Your task to perform on an android device: Open Youtube and go to the subscriptions tab Image 0: 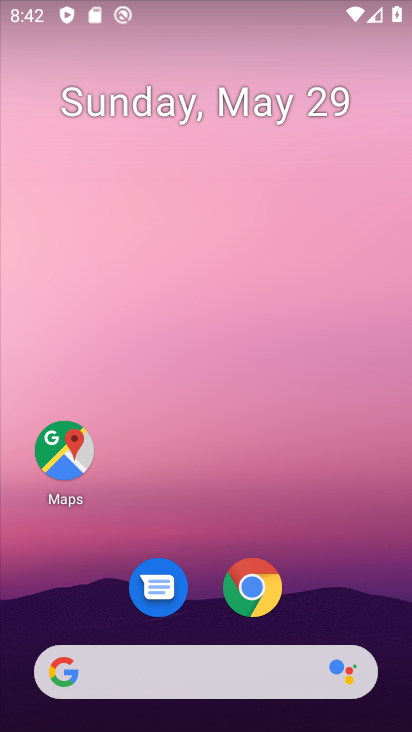
Step 0: drag from (187, 636) to (260, 93)
Your task to perform on an android device: Open Youtube and go to the subscriptions tab Image 1: 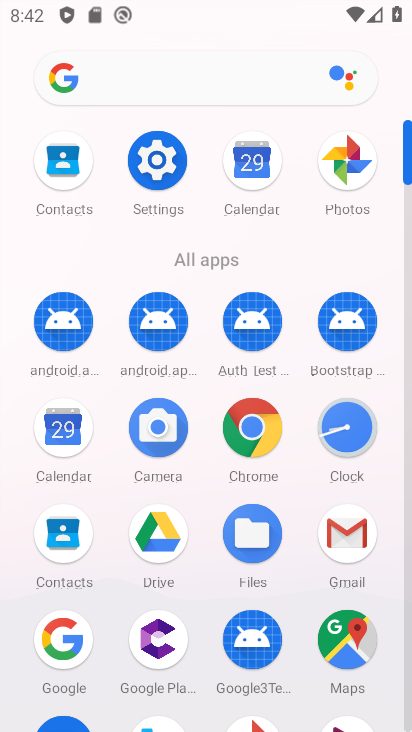
Step 1: drag from (170, 660) to (304, 91)
Your task to perform on an android device: Open Youtube and go to the subscriptions tab Image 2: 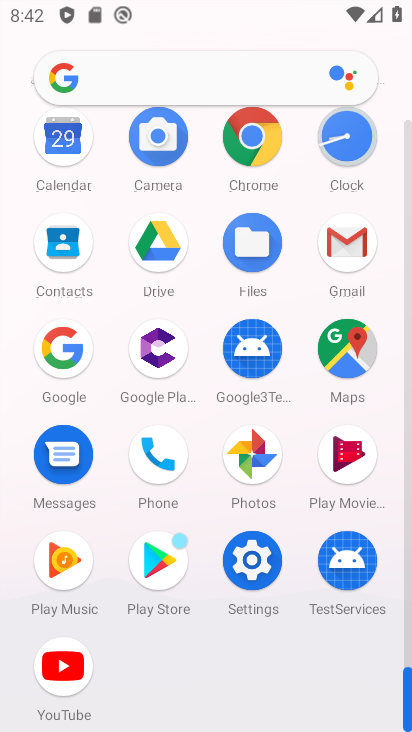
Step 2: click (78, 665)
Your task to perform on an android device: Open Youtube and go to the subscriptions tab Image 3: 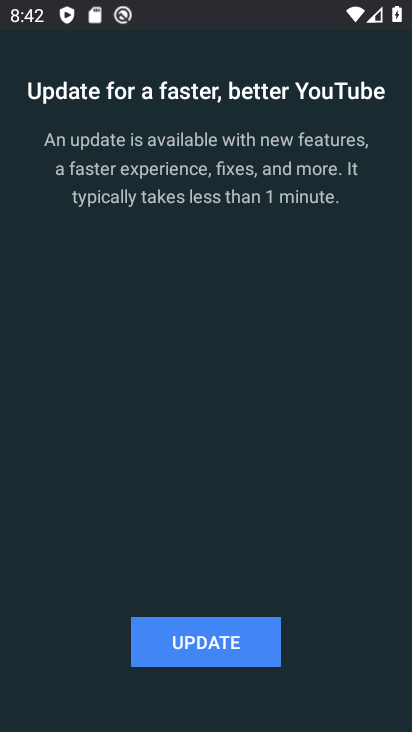
Step 3: click (202, 637)
Your task to perform on an android device: Open Youtube and go to the subscriptions tab Image 4: 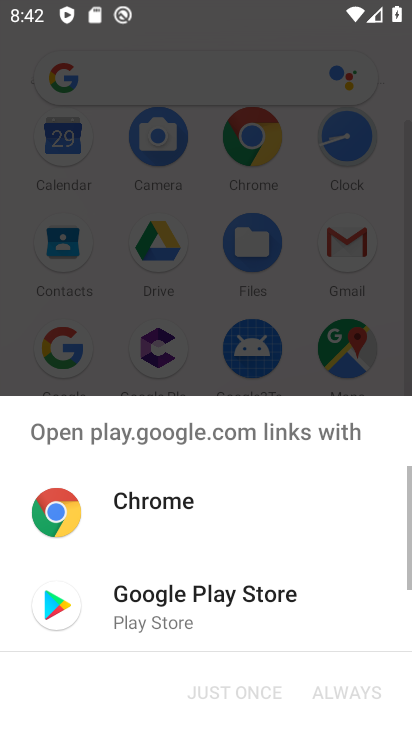
Step 4: click (180, 603)
Your task to perform on an android device: Open Youtube and go to the subscriptions tab Image 5: 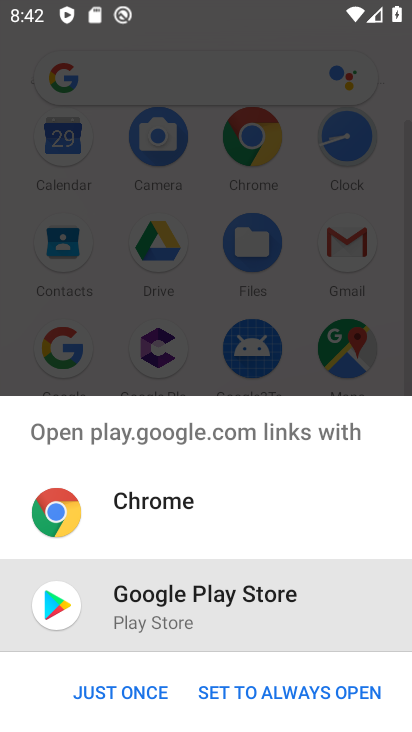
Step 5: click (113, 698)
Your task to perform on an android device: Open Youtube and go to the subscriptions tab Image 6: 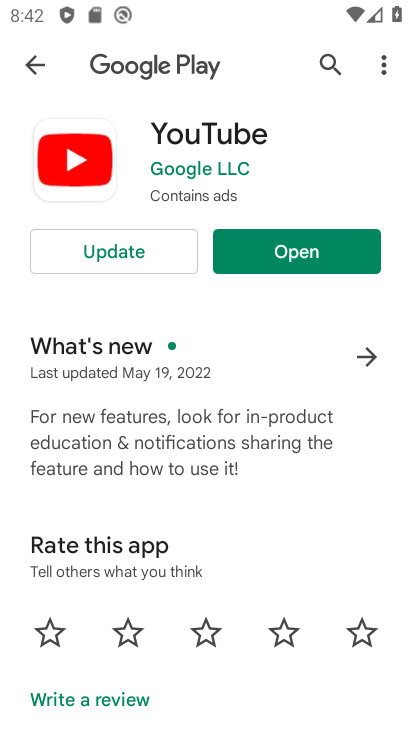
Step 6: click (90, 249)
Your task to perform on an android device: Open Youtube and go to the subscriptions tab Image 7: 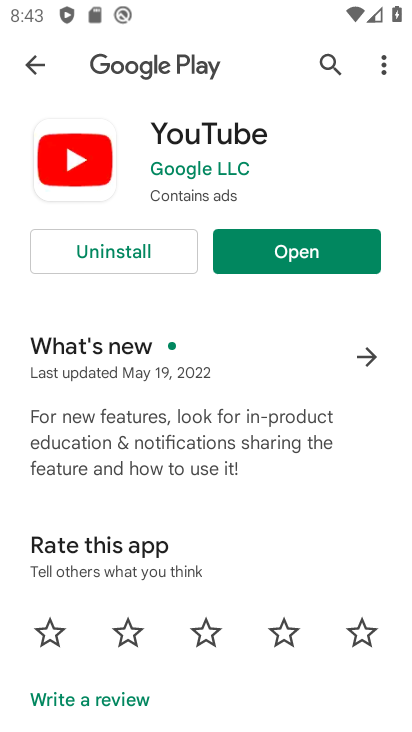
Step 7: click (320, 252)
Your task to perform on an android device: Open Youtube and go to the subscriptions tab Image 8: 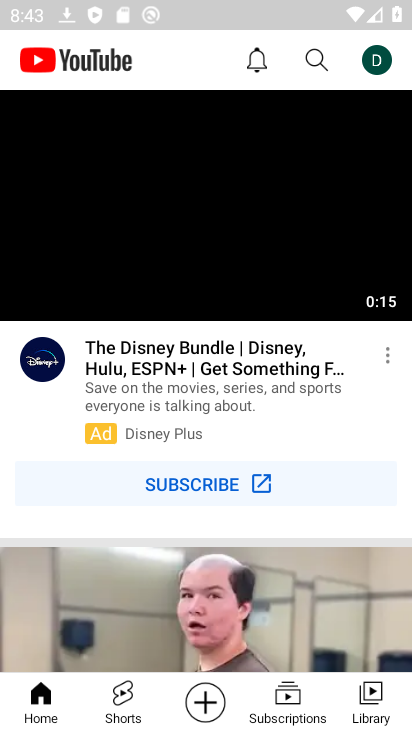
Step 8: click (285, 713)
Your task to perform on an android device: Open Youtube and go to the subscriptions tab Image 9: 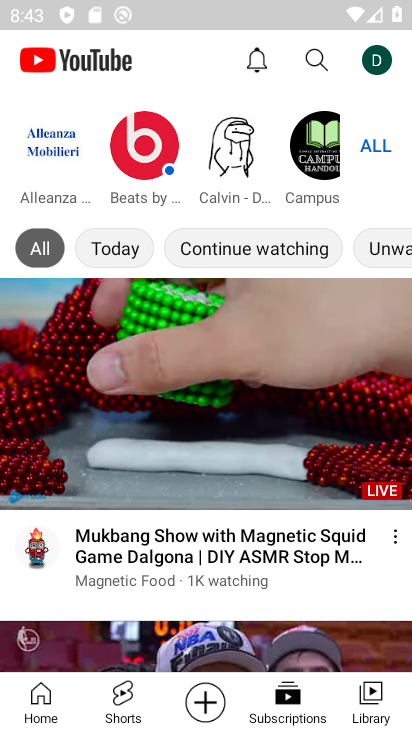
Step 9: task complete